Your task to perform on an android device: change notification settings in the gmail app Image 0: 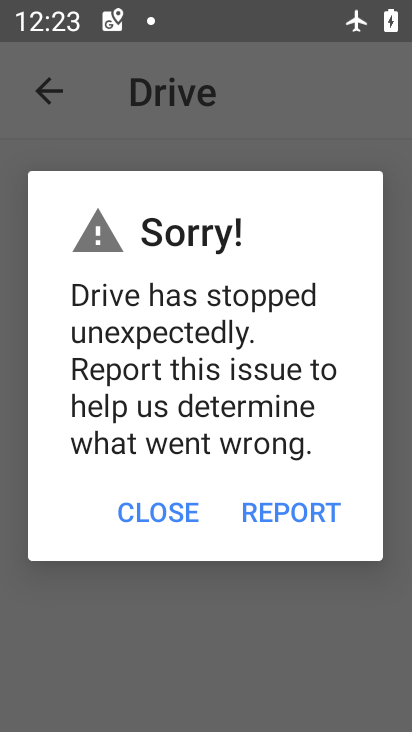
Step 0: press home button
Your task to perform on an android device: change notification settings in the gmail app Image 1: 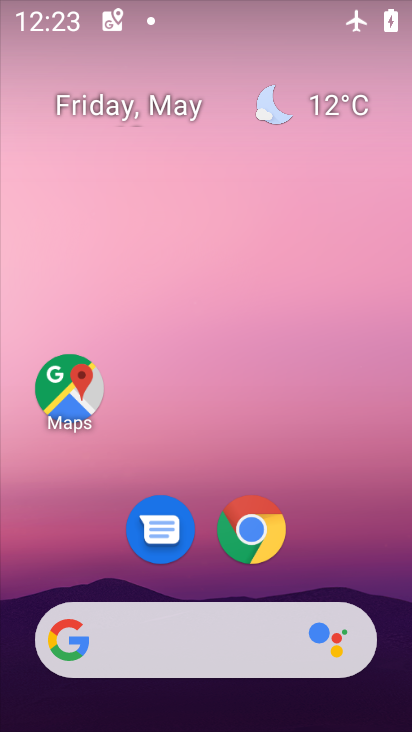
Step 1: drag from (344, 545) to (259, 104)
Your task to perform on an android device: change notification settings in the gmail app Image 2: 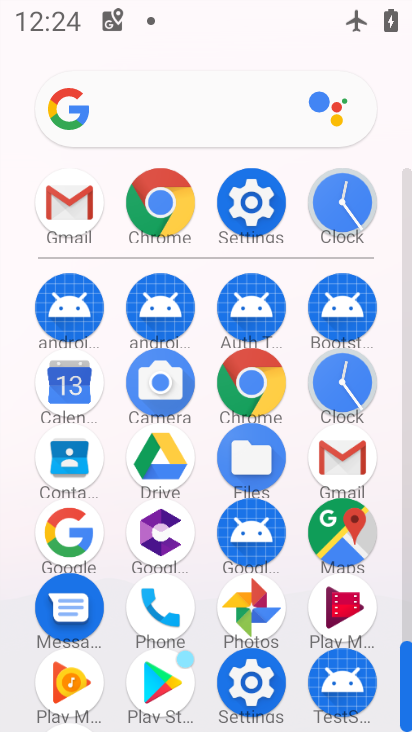
Step 2: click (334, 458)
Your task to perform on an android device: change notification settings in the gmail app Image 3: 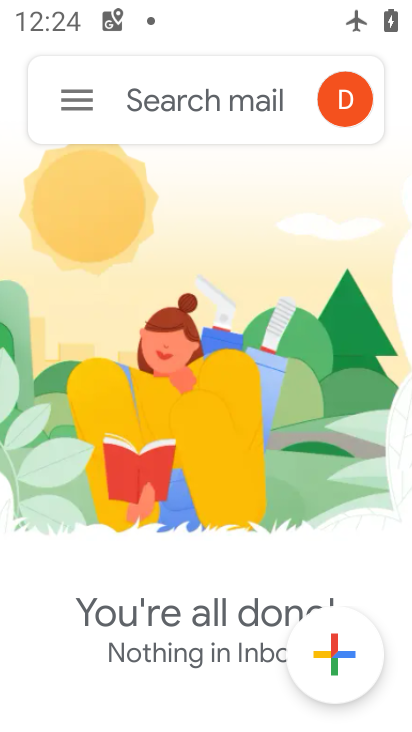
Step 3: click (47, 108)
Your task to perform on an android device: change notification settings in the gmail app Image 4: 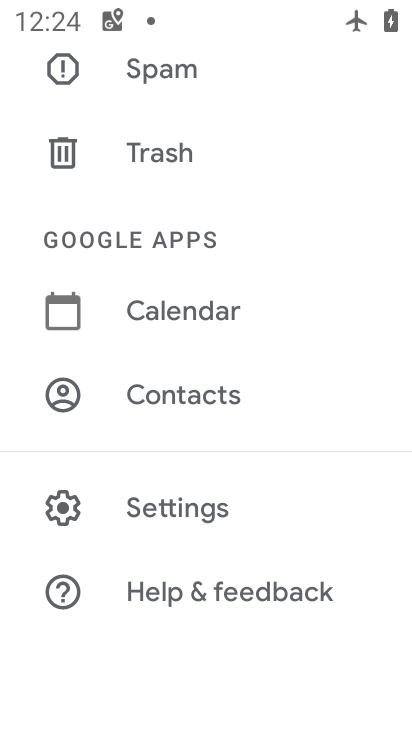
Step 4: click (204, 512)
Your task to perform on an android device: change notification settings in the gmail app Image 5: 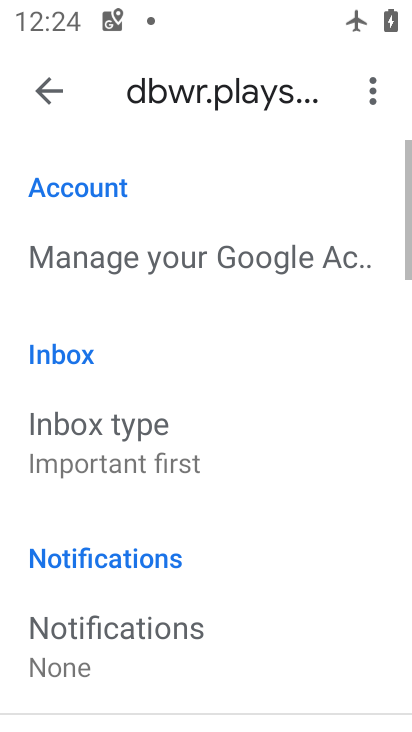
Step 5: drag from (191, 600) to (211, 189)
Your task to perform on an android device: change notification settings in the gmail app Image 6: 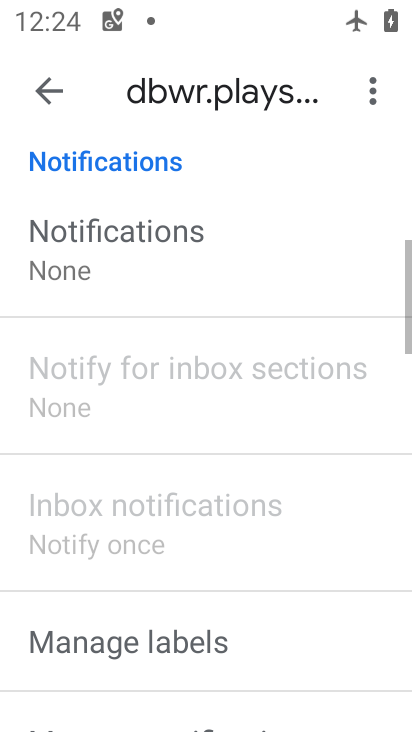
Step 6: click (77, 631)
Your task to perform on an android device: change notification settings in the gmail app Image 7: 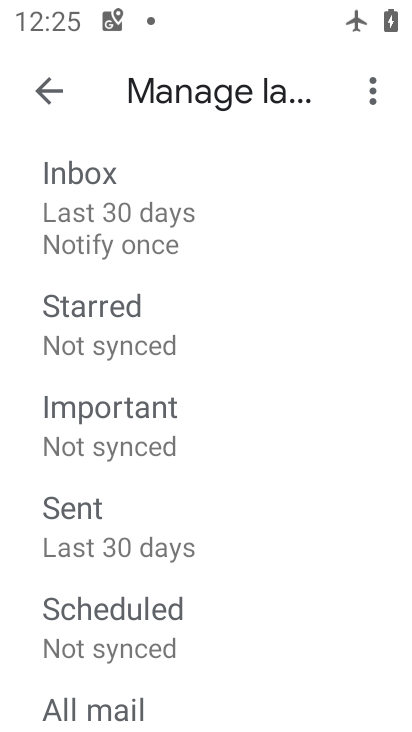
Step 7: click (53, 87)
Your task to perform on an android device: change notification settings in the gmail app Image 8: 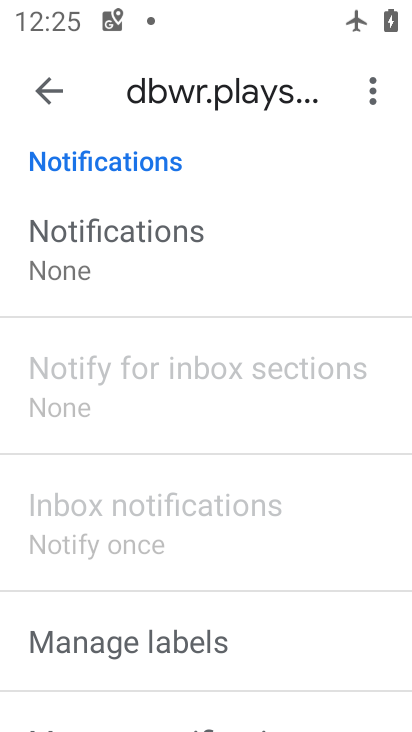
Step 8: click (203, 238)
Your task to perform on an android device: change notification settings in the gmail app Image 9: 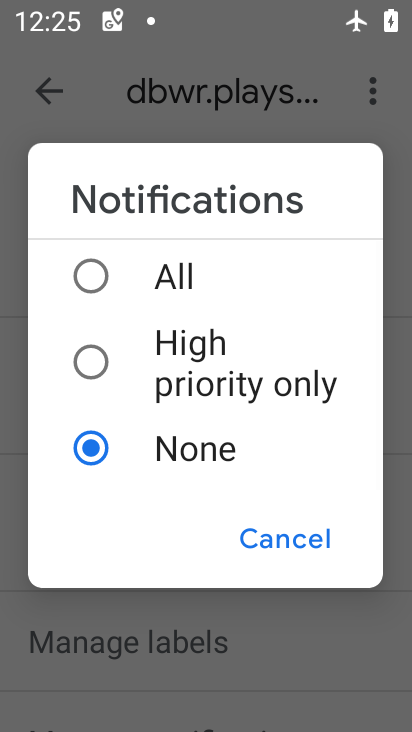
Step 9: task complete